Your task to perform on an android device: change timer sound Image 0: 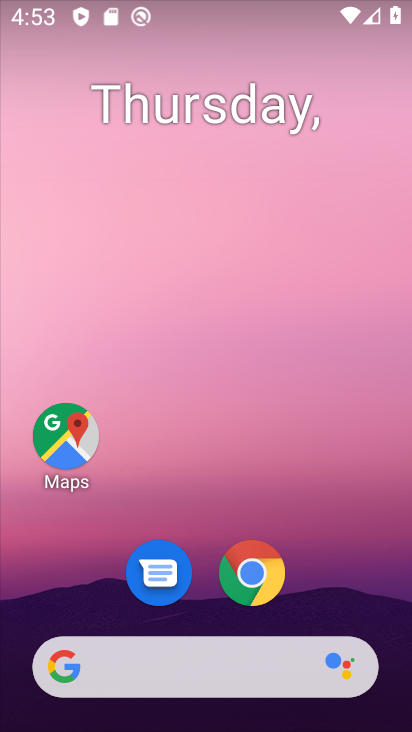
Step 0: drag from (326, 574) to (198, 21)
Your task to perform on an android device: change timer sound Image 1: 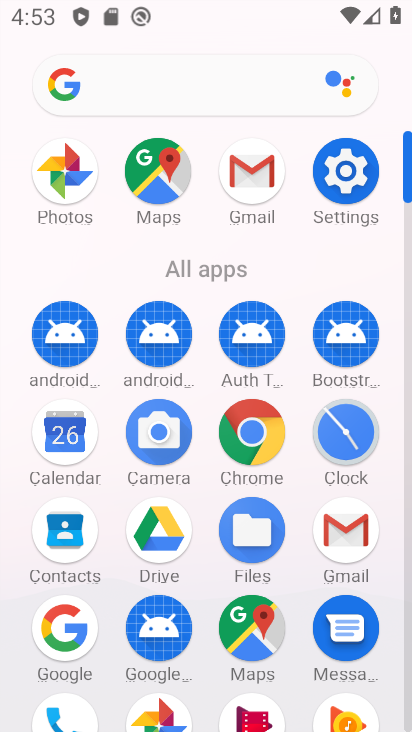
Step 1: drag from (12, 547) to (6, 277)
Your task to perform on an android device: change timer sound Image 2: 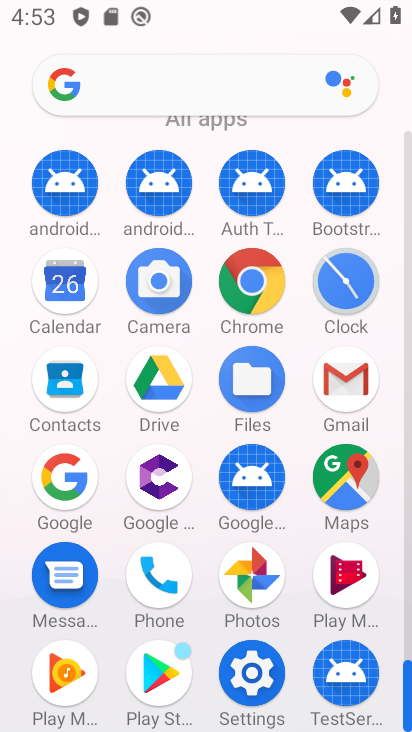
Step 2: click (343, 279)
Your task to perform on an android device: change timer sound Image 3: 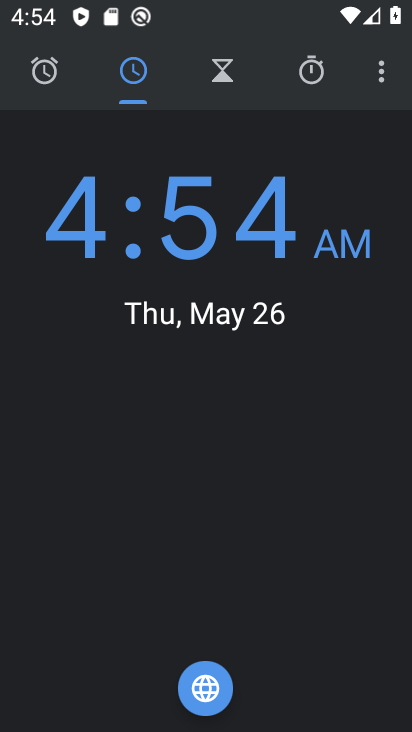
Step 3: drag from (377, 74) to (305, 141)
Your task to perform on an android device: change timer sound Image 4: 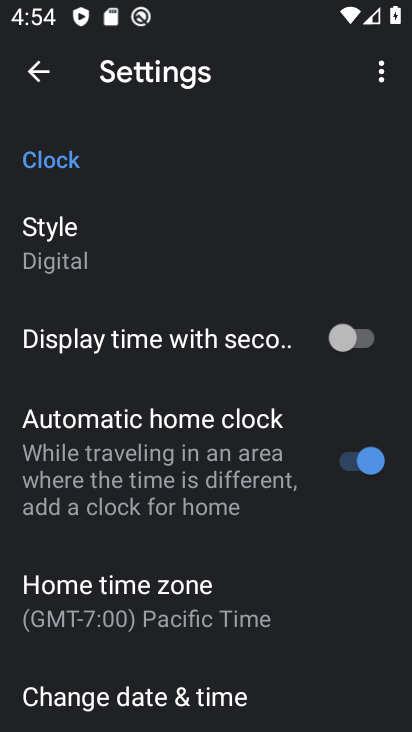
Step 4: drag from (208, 657) to (195, 241)
Your task to perform on an android device: change timer sound Image 5: 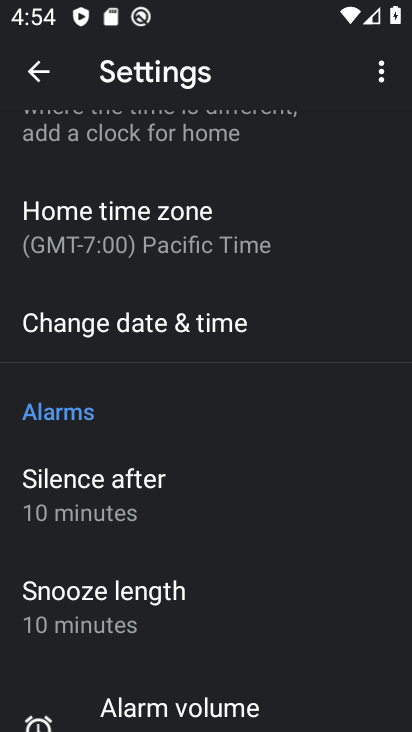
Step 5: drag from (232, 480) to (226, 188)
Your task to perform on an android device: change timer sound Image 6: 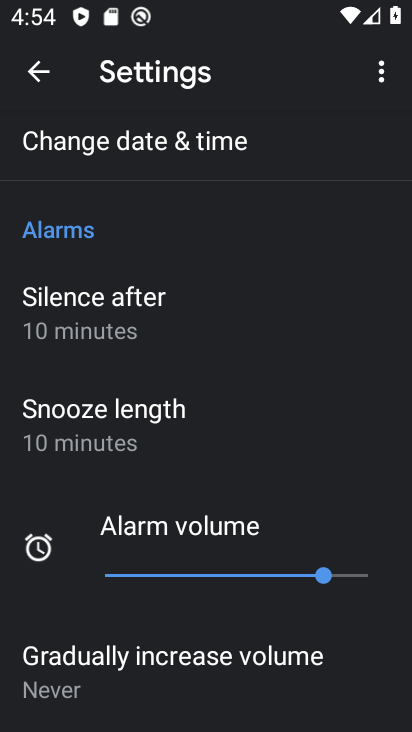
Step 6: drag from (217, 499) to (227, 294)
Your task to perform on an android device: change timer sound Image 7: 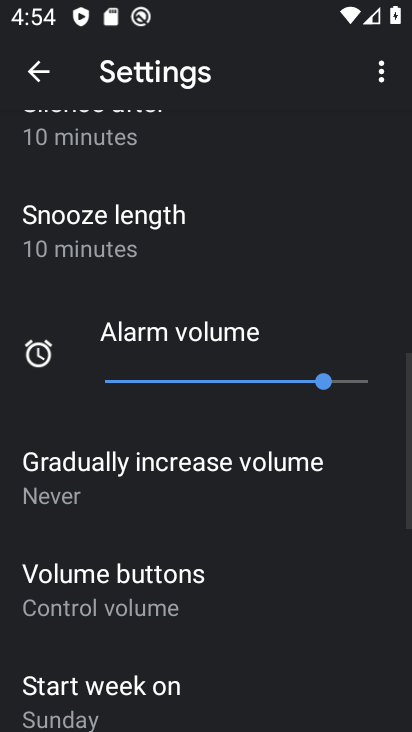
Step 7: drag from (180, 672) to (226, 264)
Your task to perform on an android device: change timer sound Image 8: 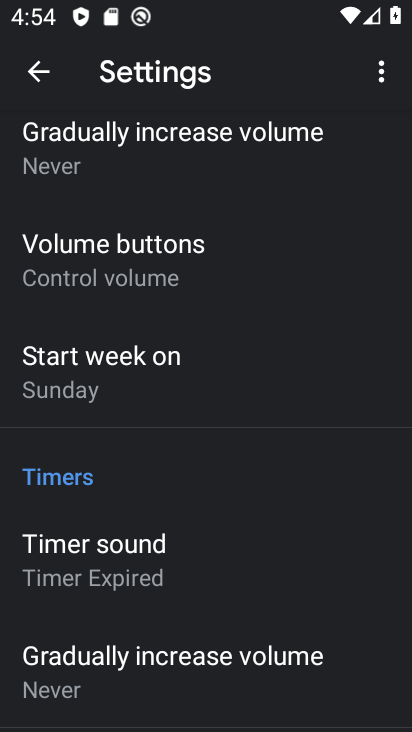
Step 8: click (162, 553)
Your task to perform on an android device: change timer sound Image 9: 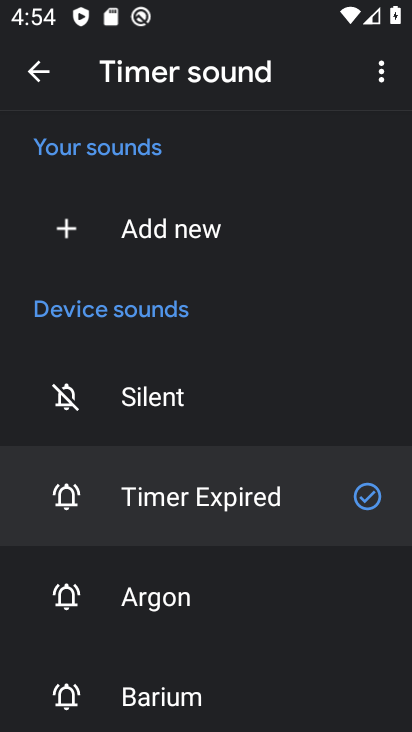
Step 9: click (160, 610)
Your task to perform on an android device: change timer sound Image 10: 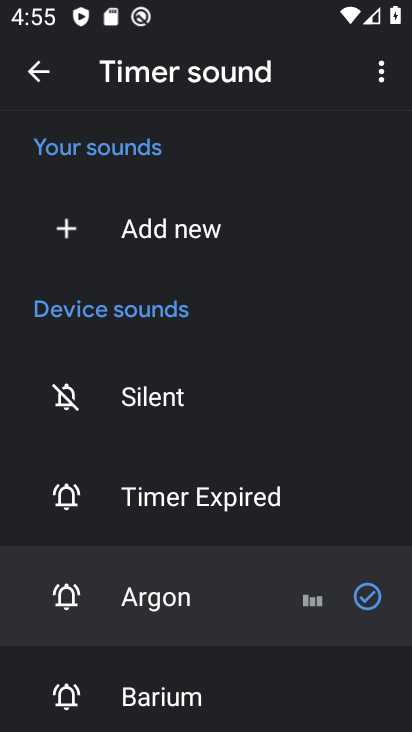
Step 10: task complete